Your task to perform on an android device: What's the weather going to be tomorrow? Image 0: 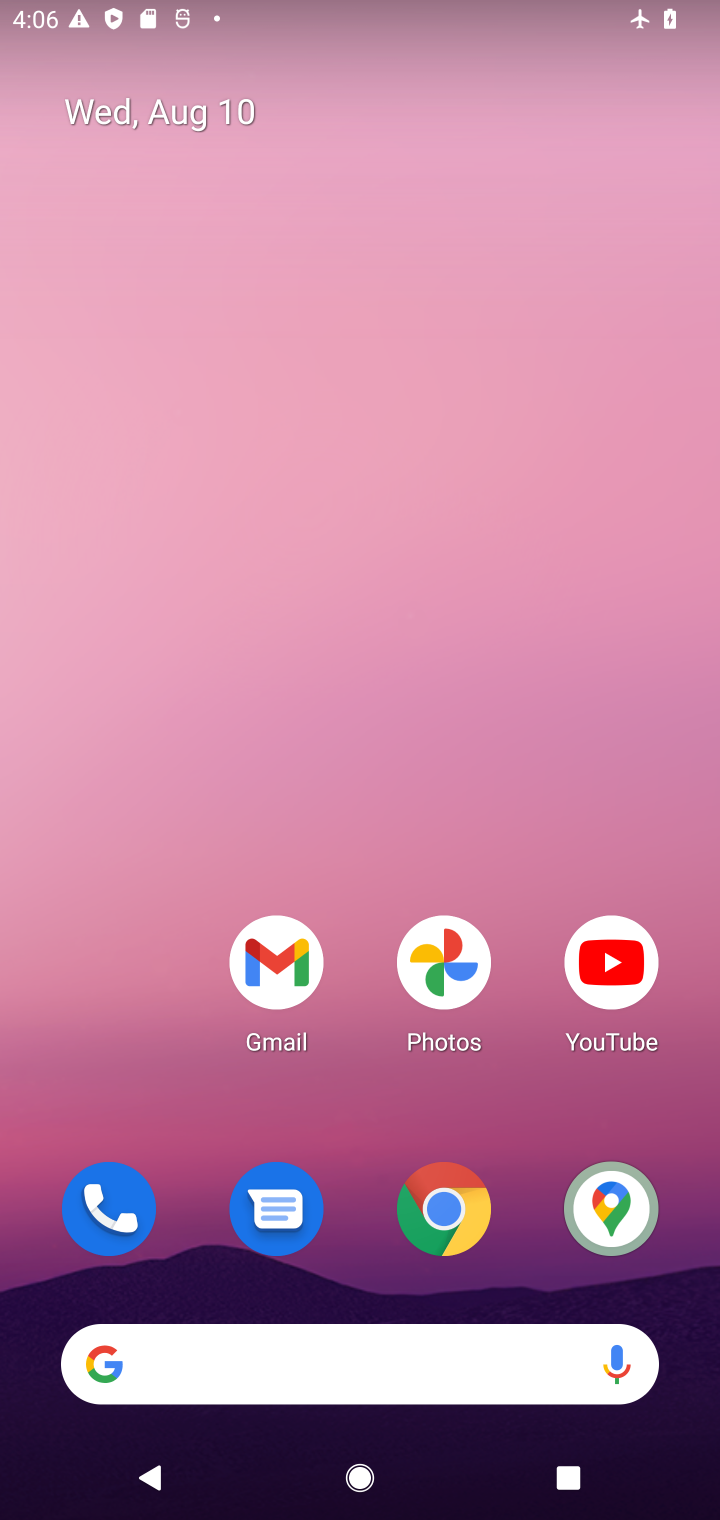
Step 0: click (400, 1371)
Your task to perform on an android device: What's the weather going to be tomorrow? Image 1: 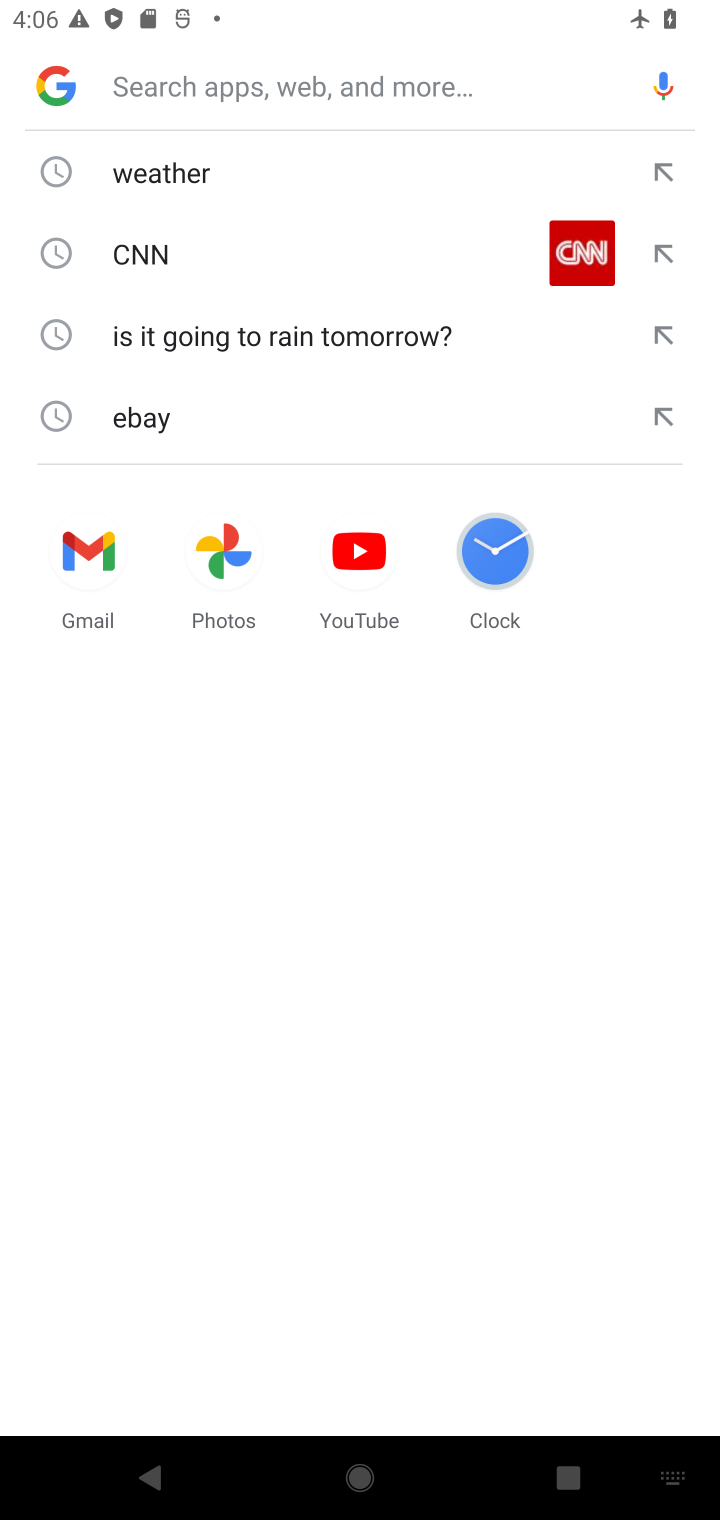
Step 1: click (205, 153)
Your task to perform on an android device: What's the weather going to be tomorrow? Image 2: 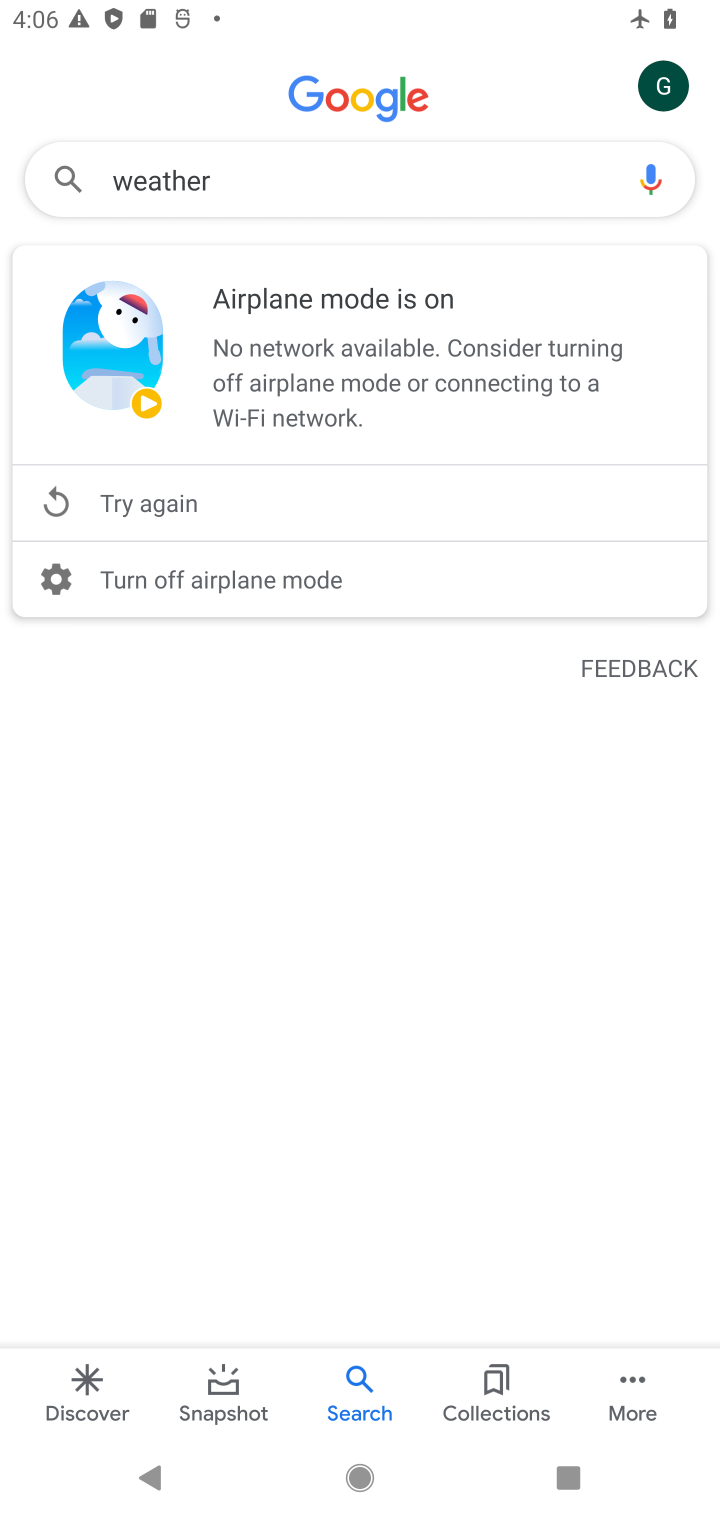
Step 2: drag from (367, 5) to (522, 566)
Your task to perform on an android device: What's the weather going to be tomorrow? Image 3: 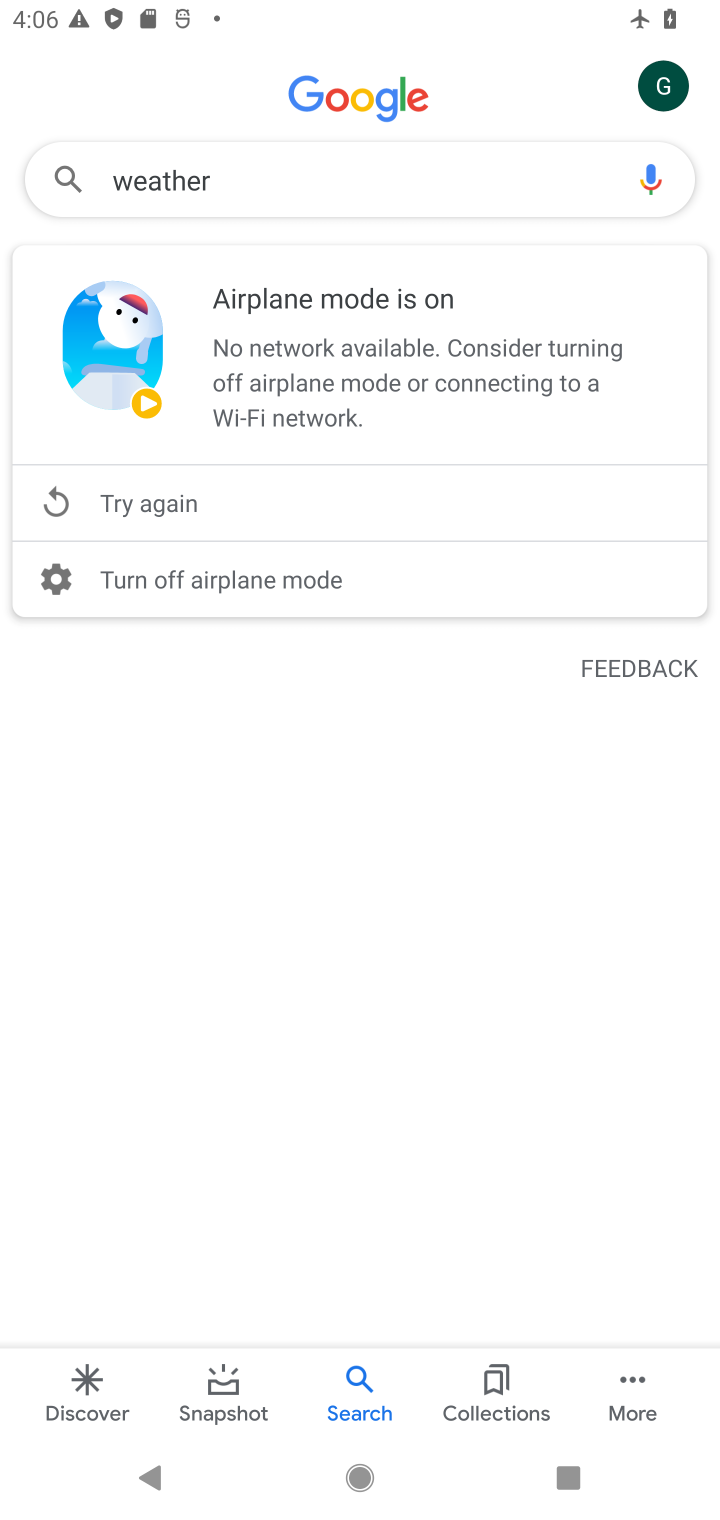
Step 3: drag from (343, 2) to (420, 1081)
Your task to perform on an android device: What's the weather going to be tomorrow? Image 4: 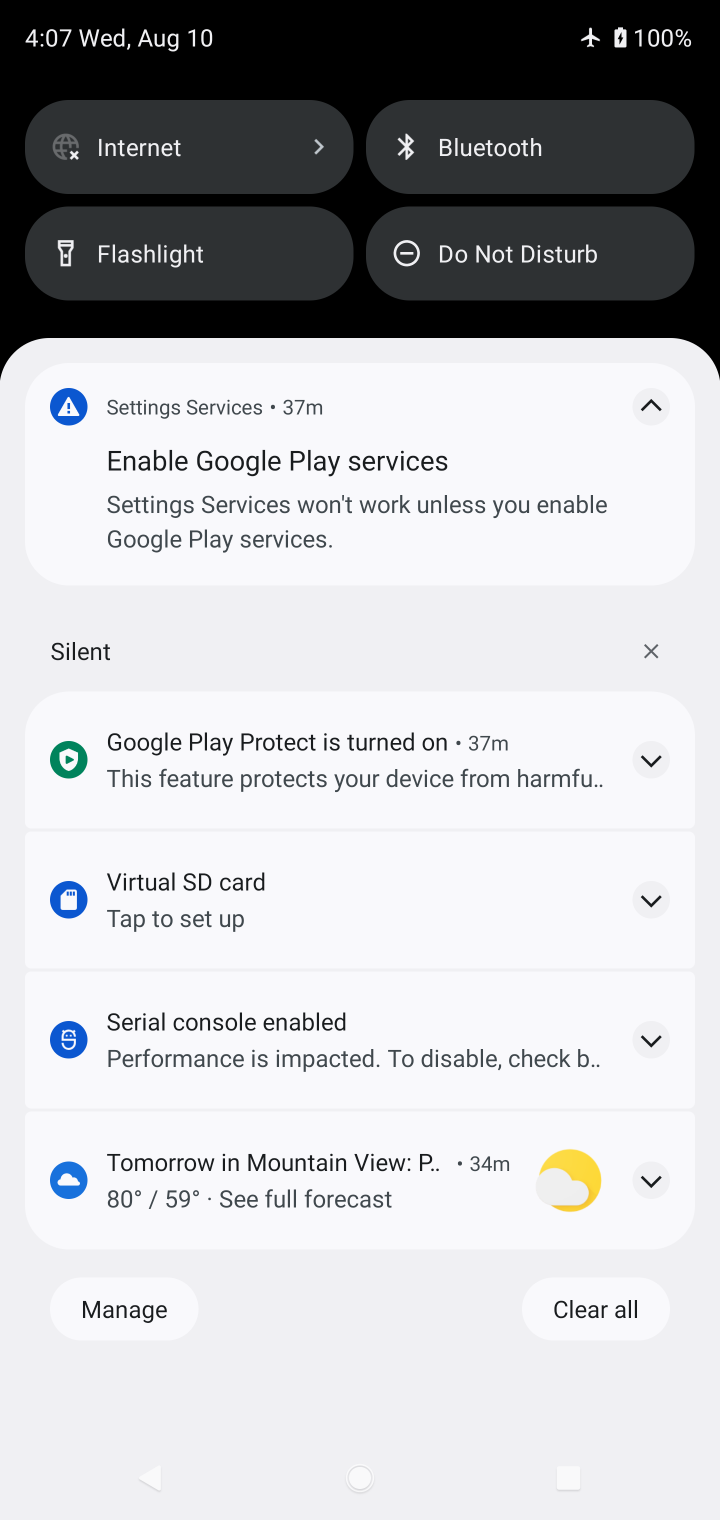
Step 4: drag from (437, 782) to (471, 1082)
Your task to perform on an android device: What's the weather going to be tomorrow? Image 5: 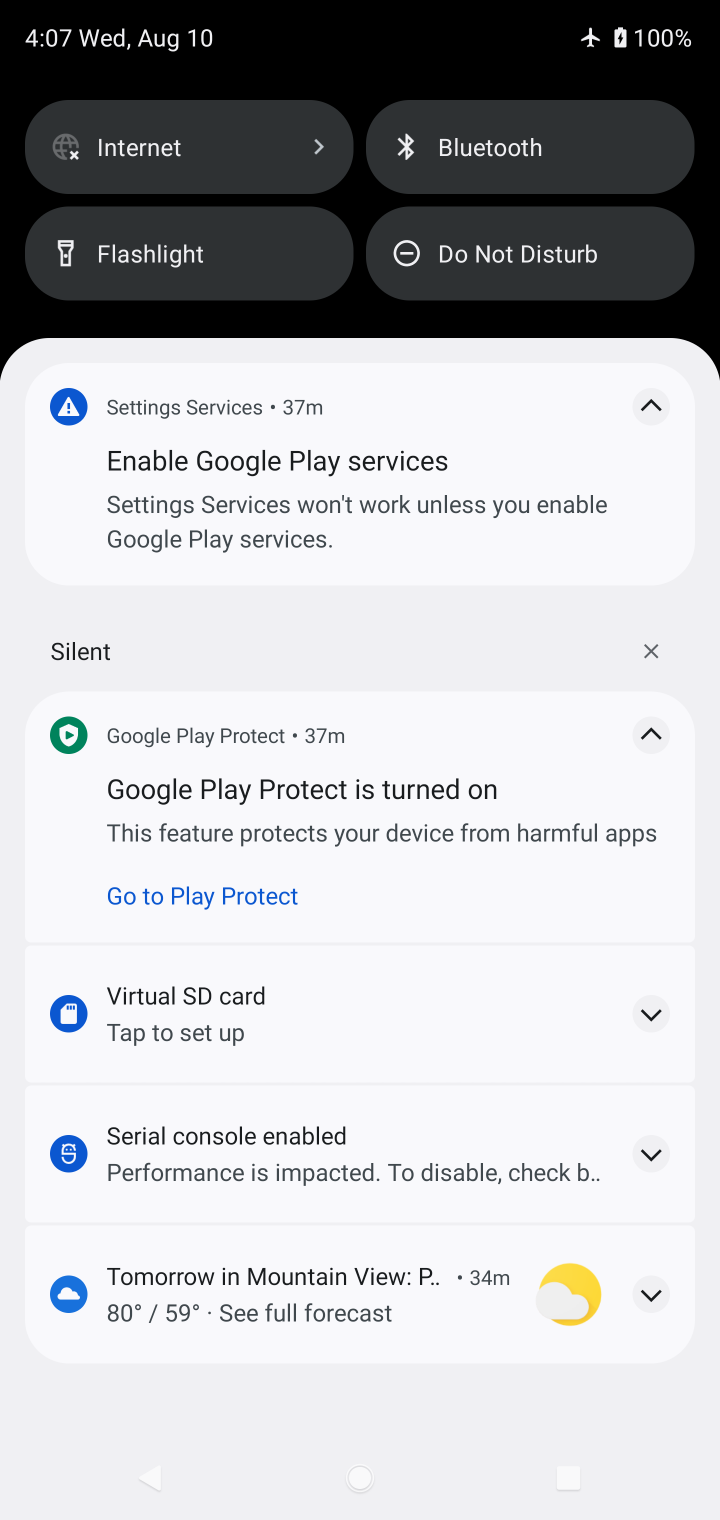
Step 5: drag from (359, 92) to (426, 771)
Your task to perform on an android device: What's the weather going to be tomorrow? Image 6: 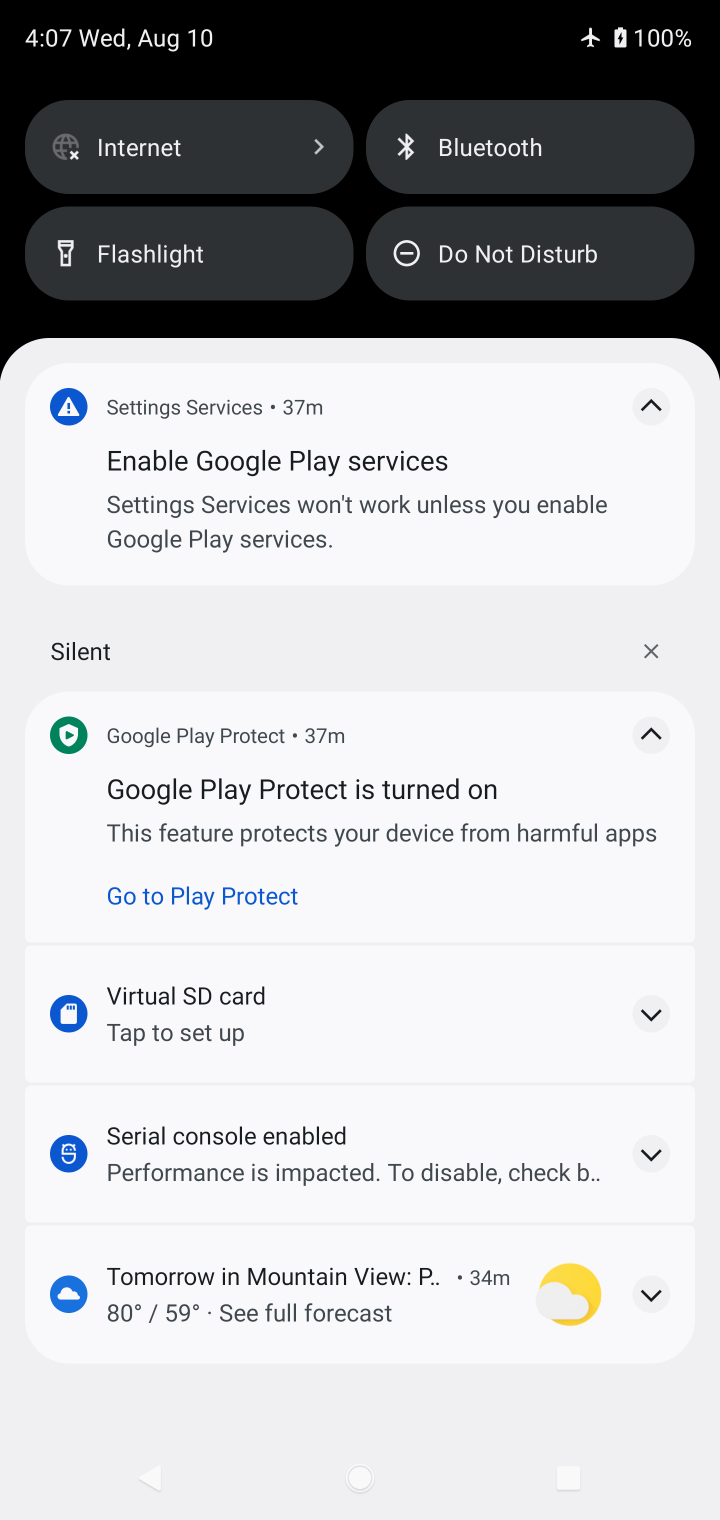
Step 6: drag from (351, 98) to (424, 626)
Your task to perform on an android device: What's the weather going to be tomorrow? Image 7: 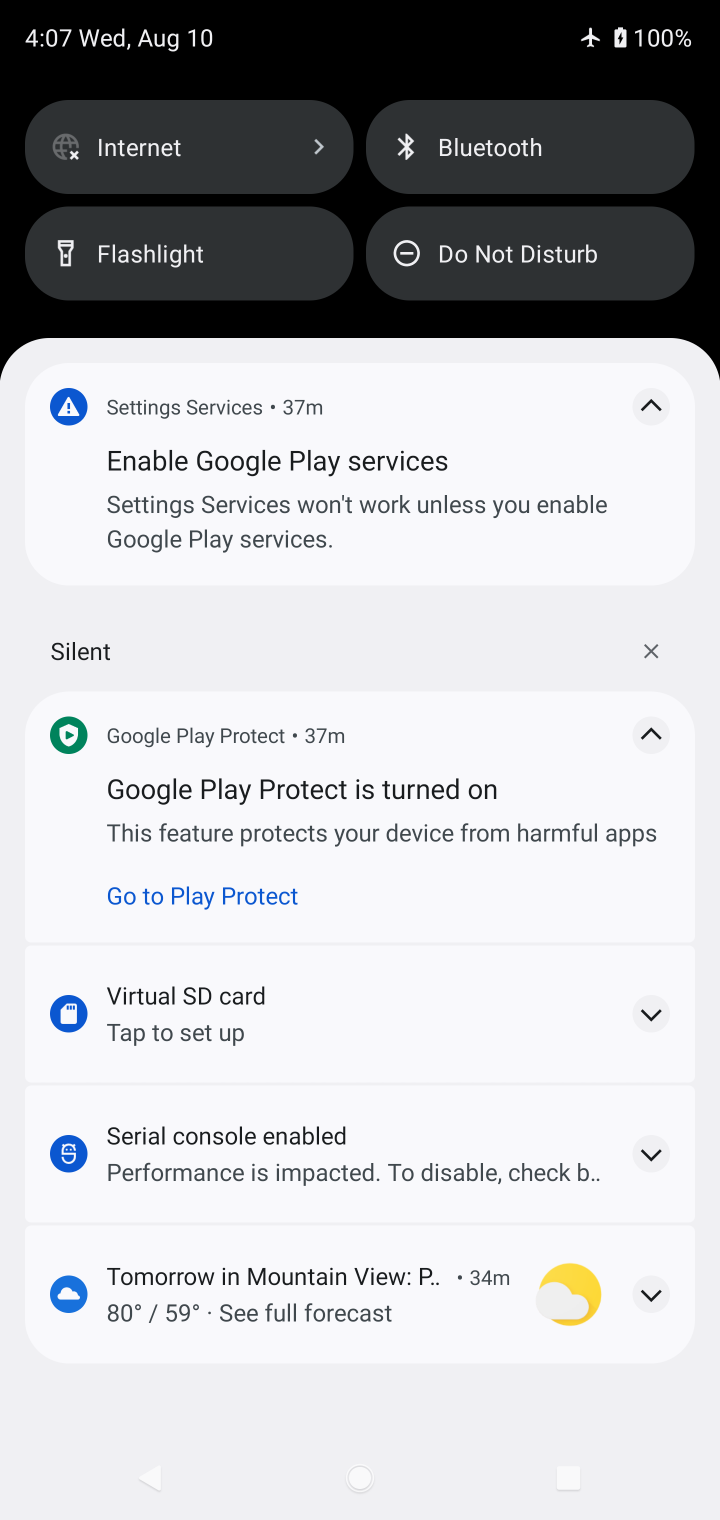
Step 7: drag from (363, 90) to (426, 1063)
Your task to perform on an android device: What's the weather going to be tomorrow? Image 8: 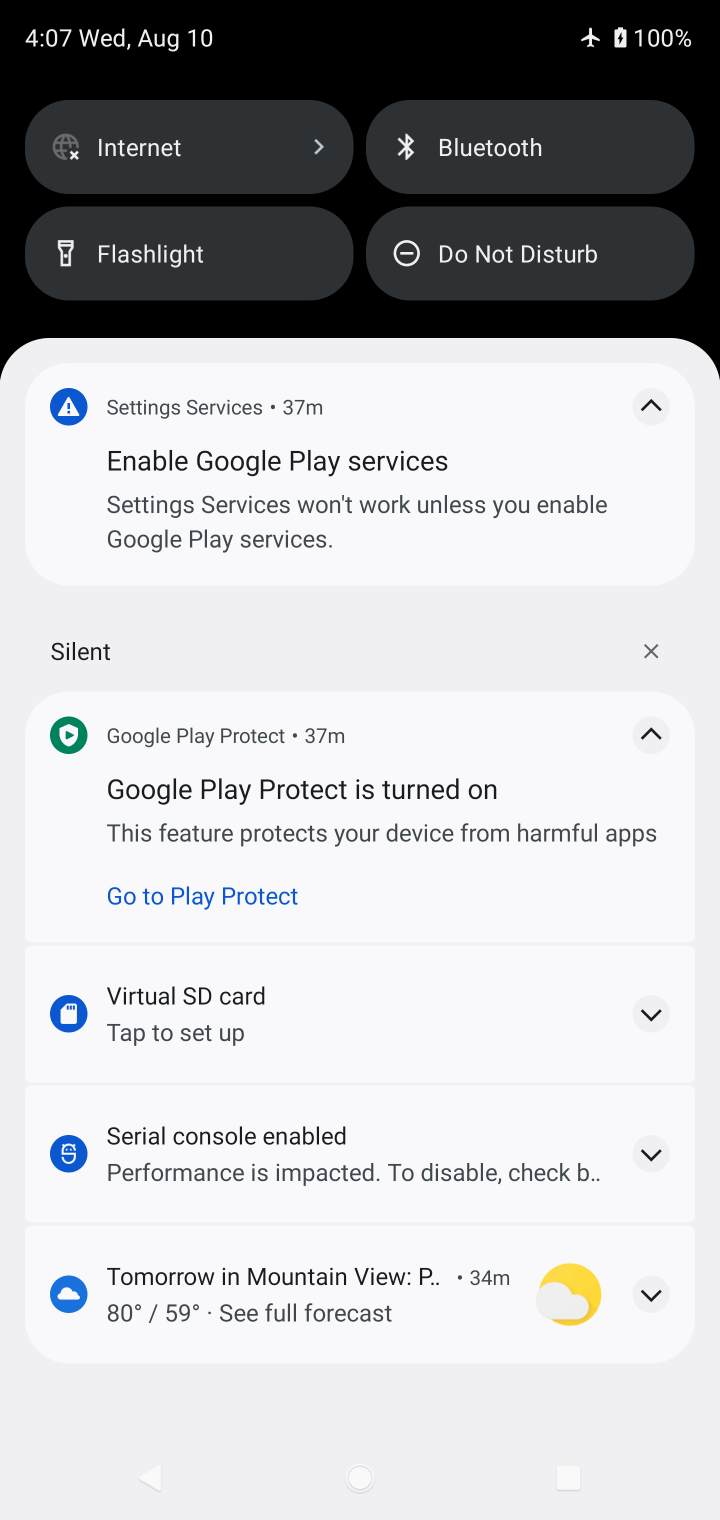
Step 8: drag from (341, 301) to (384, 1429)
Your task to perform on an android device: What's the weather going to be tomorrow? Image 9: 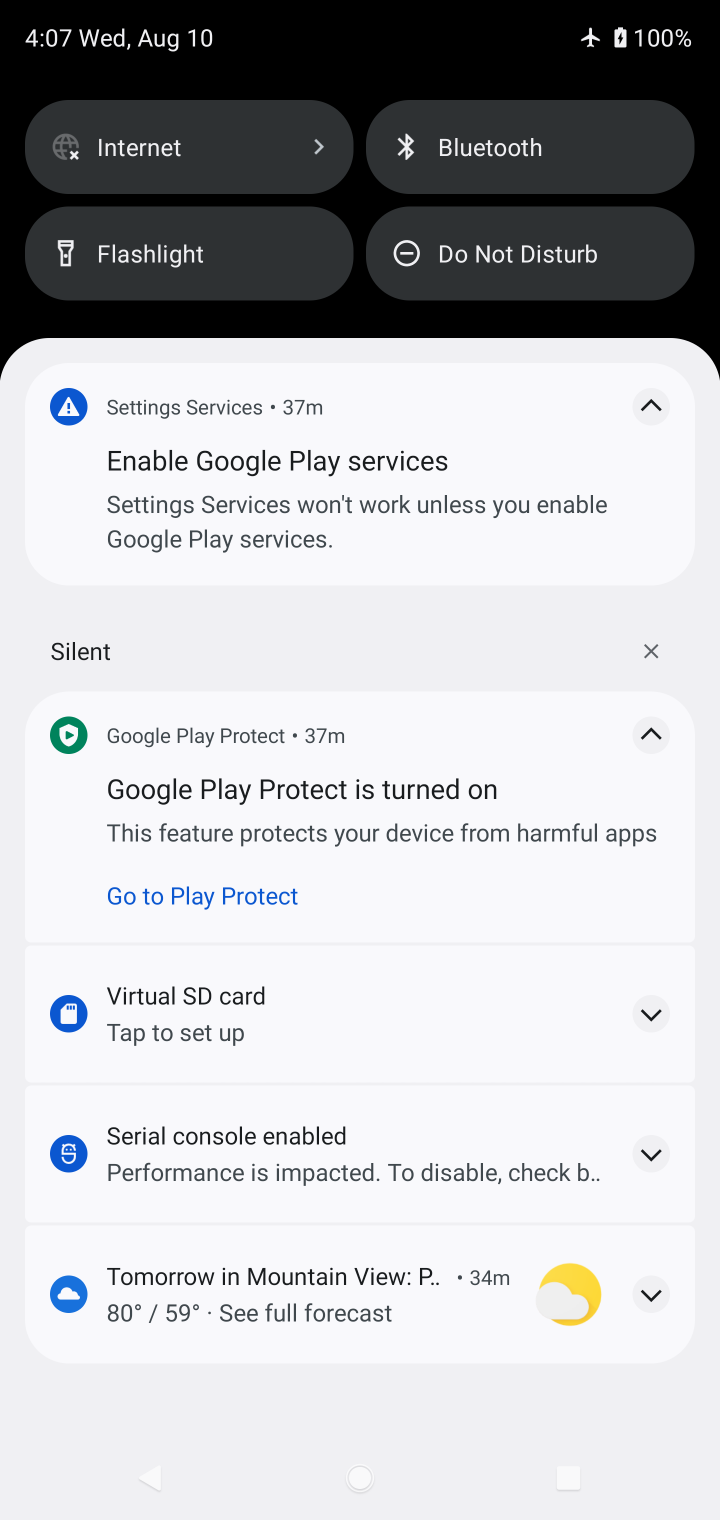
Step 9: drag from (386, 272) to (466, 1042)
Your task to perform on an android device: What's the weather going to be tomorrow? Image 10: 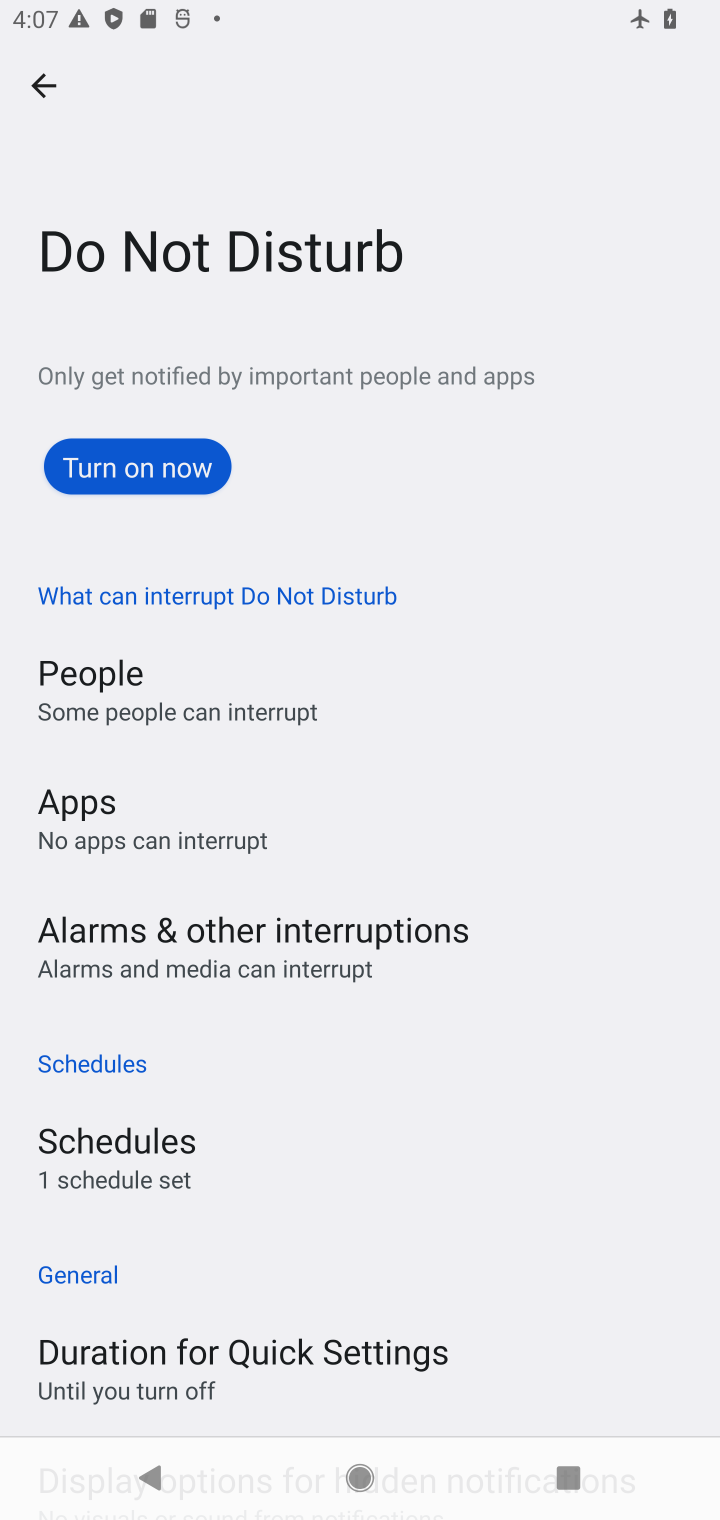
Step 10: drag from (366, 94) to (525, 1054)
Your task to perform on an android device: What's the weather going to be tomorrow? Image 11: 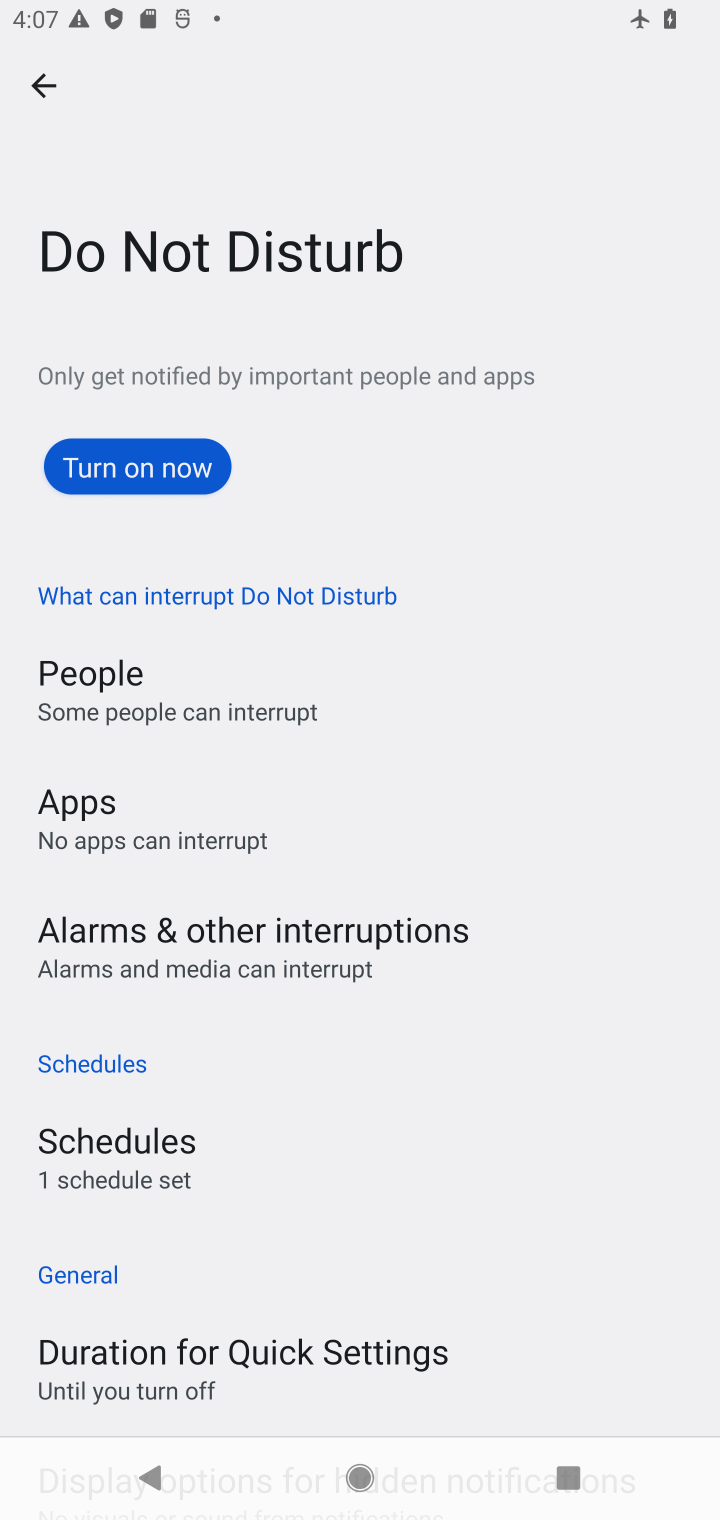
Step 11: click (42, 100)
Your task to perform on an android device: What's the weather going to be tomorrow? Image 12: 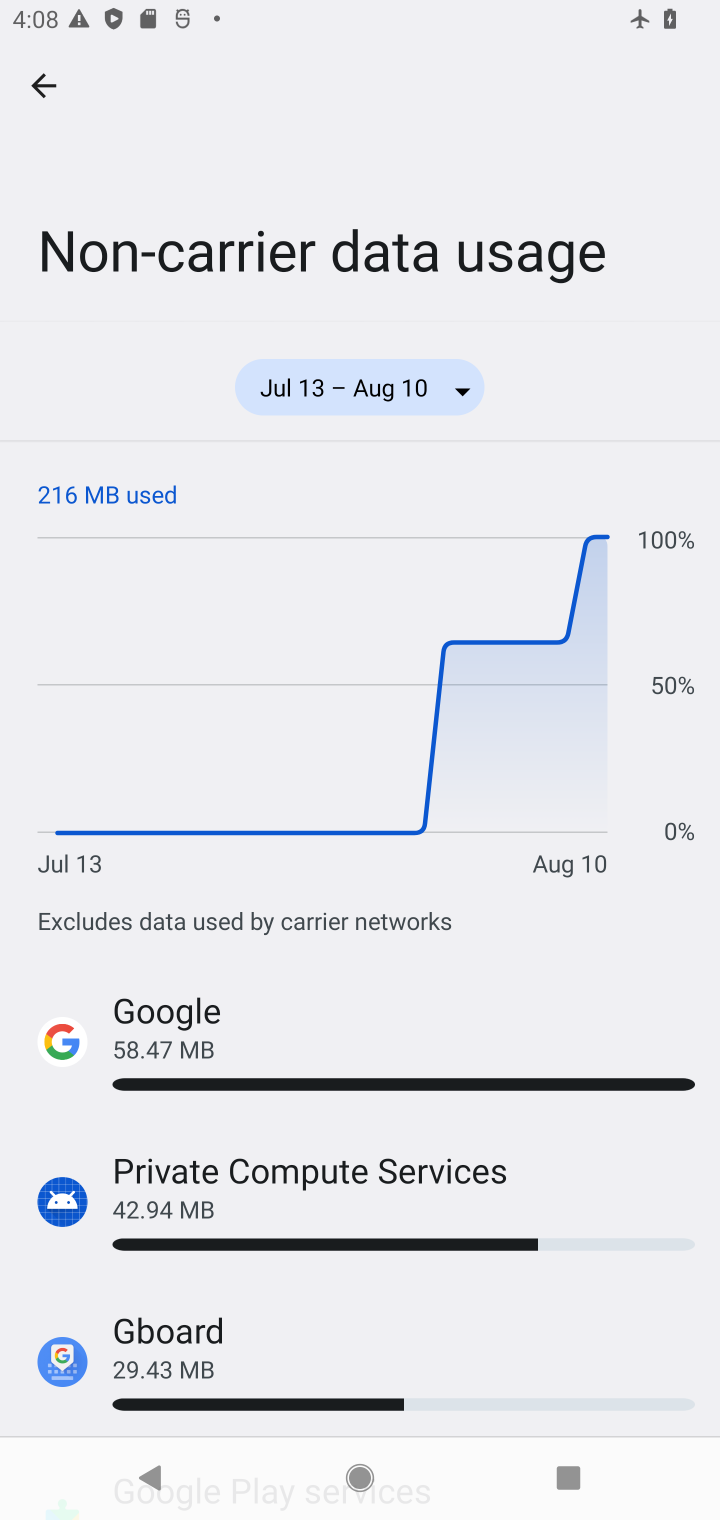
Step 12: click (60, 88)
Your task to perform on an android device: What's the weather going to be tomorrow? Image 13: 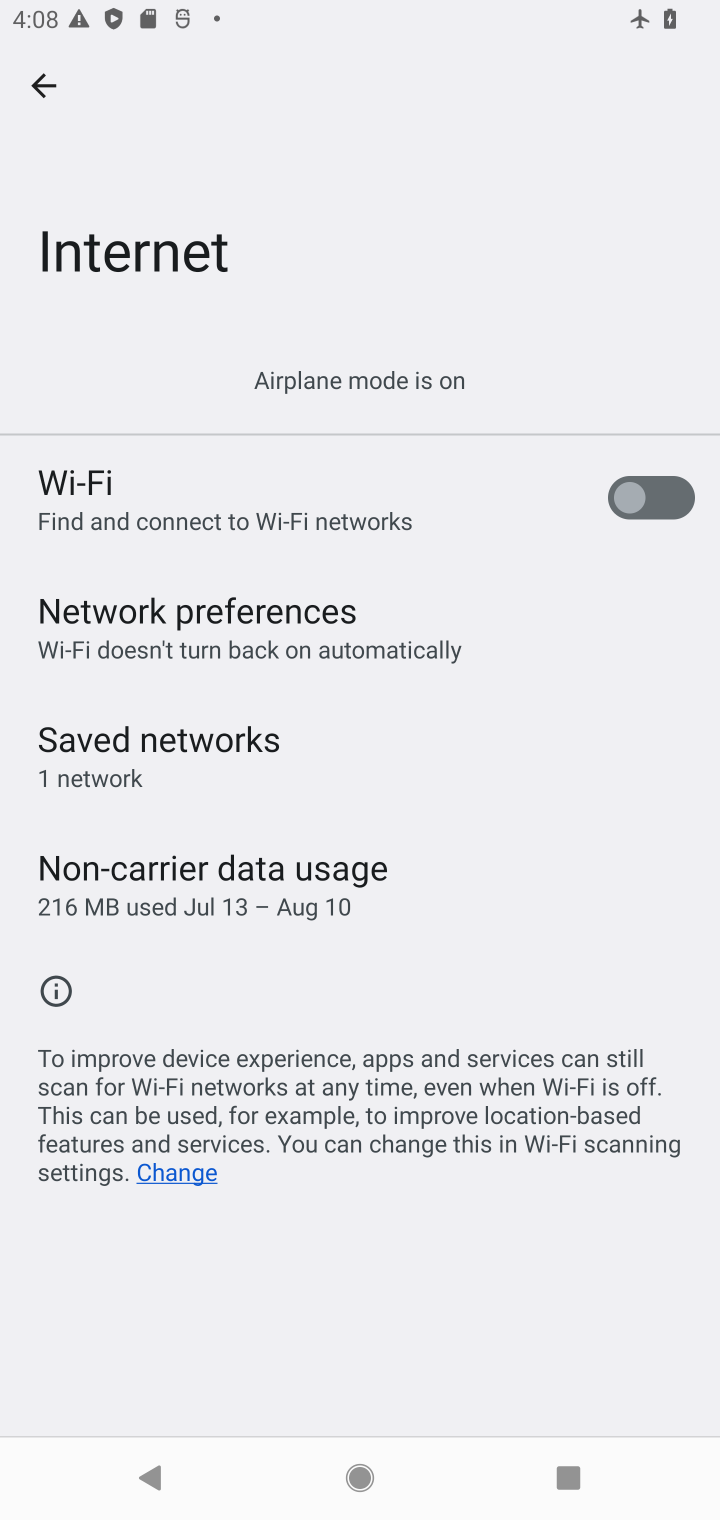
Step 13: click (40, 79)
Your task to perform on an android device: What's the weather going to be tomorrow? Image 14: 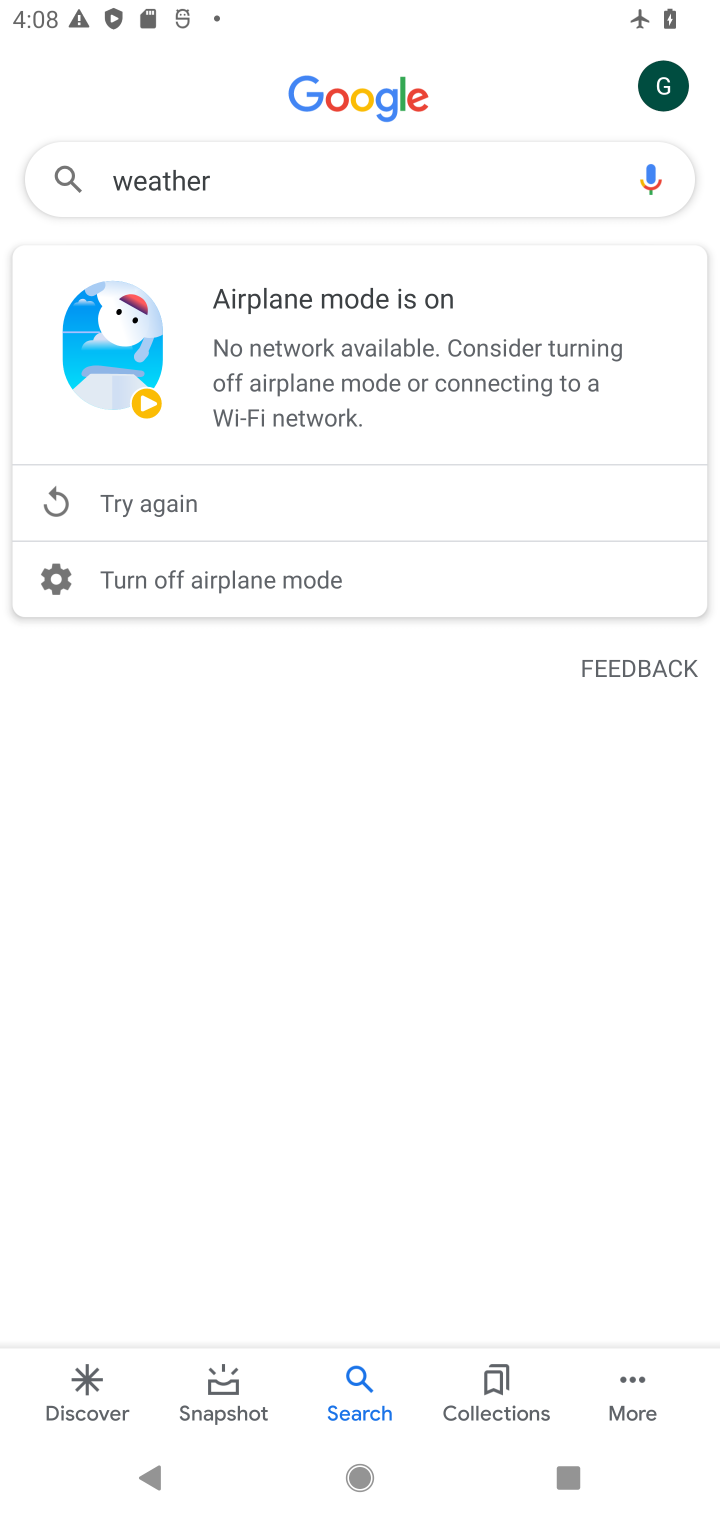
Step 14: drag from (389, 22) to (241, 1277)
Your task to perform on an android device: What's the weather going to be tomorrow? Image 15: 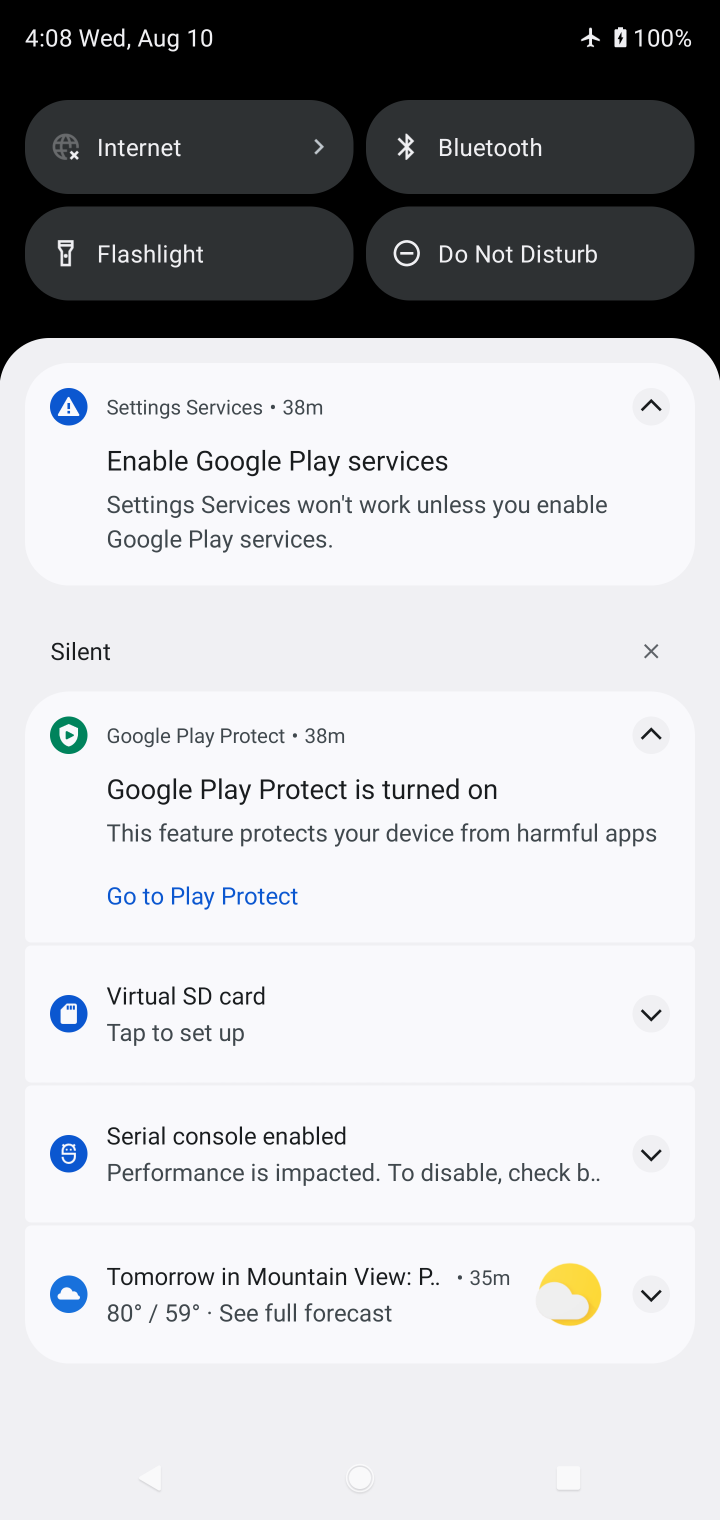
Step 15: drag from (375, 74) to (292, 1294)
Your task to perform on an android device: What's the weather going to be tomorrow? Image 16: 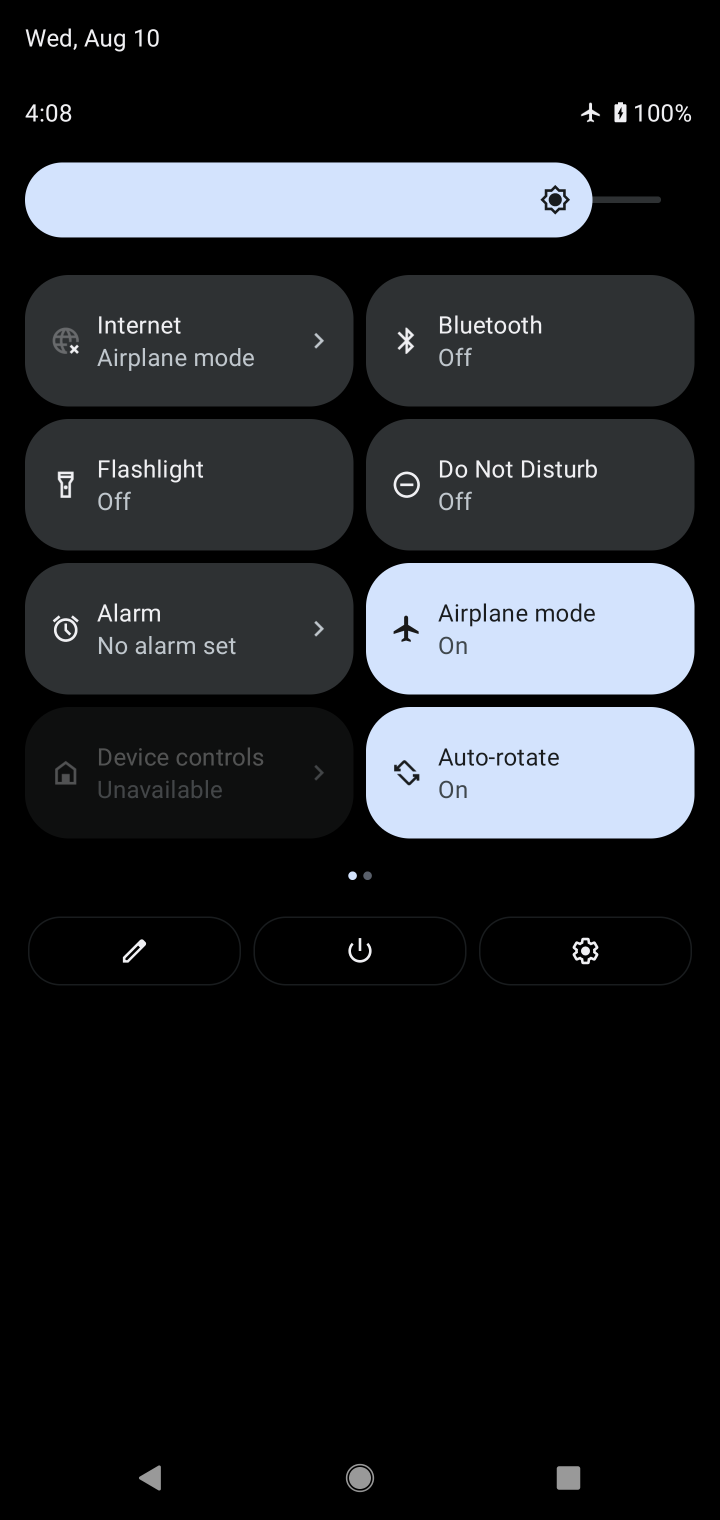
Step 16: click (576, 607)
Your task to perform on an android device: What's the weather going to be tomorrow? Image 17: 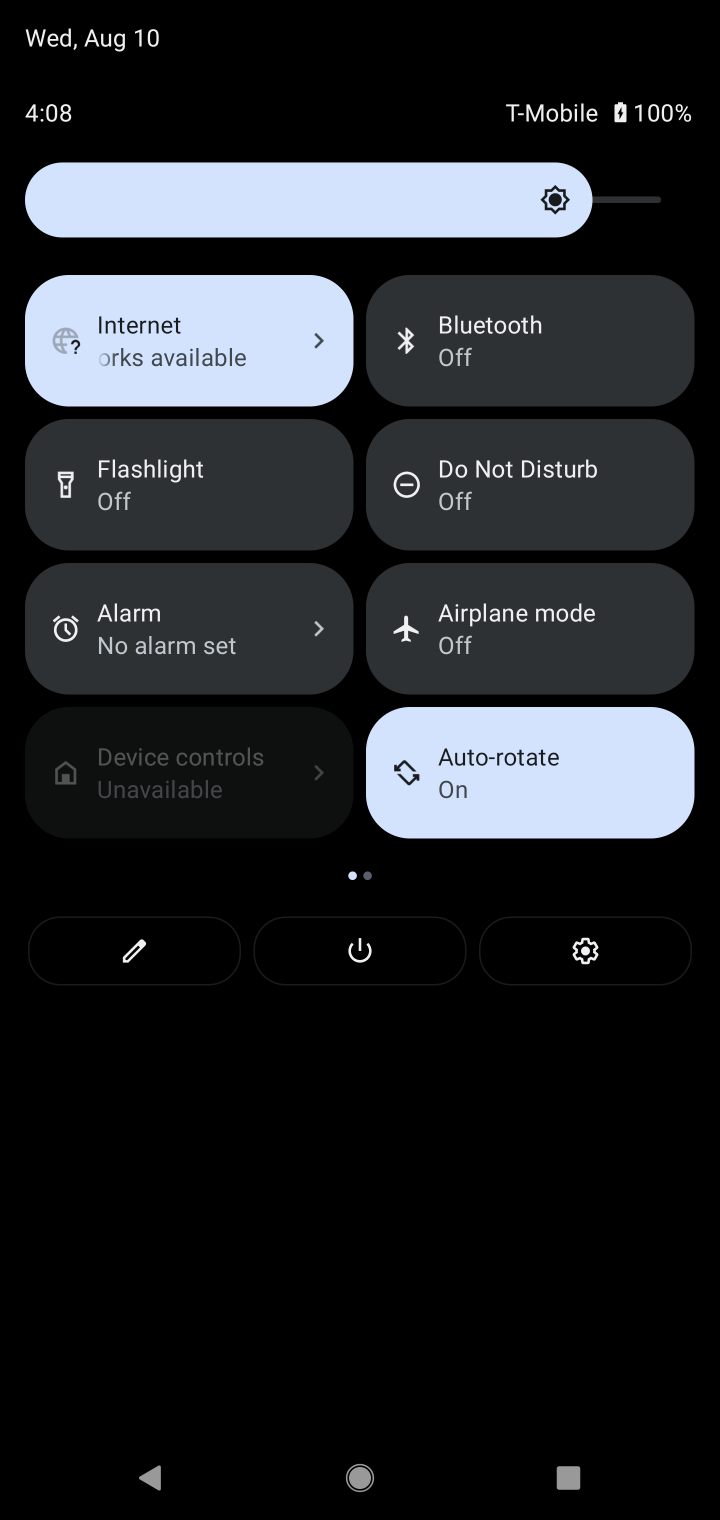
Step 17: task complete